Your task to perform on an android device: Go to network settings Image 0: 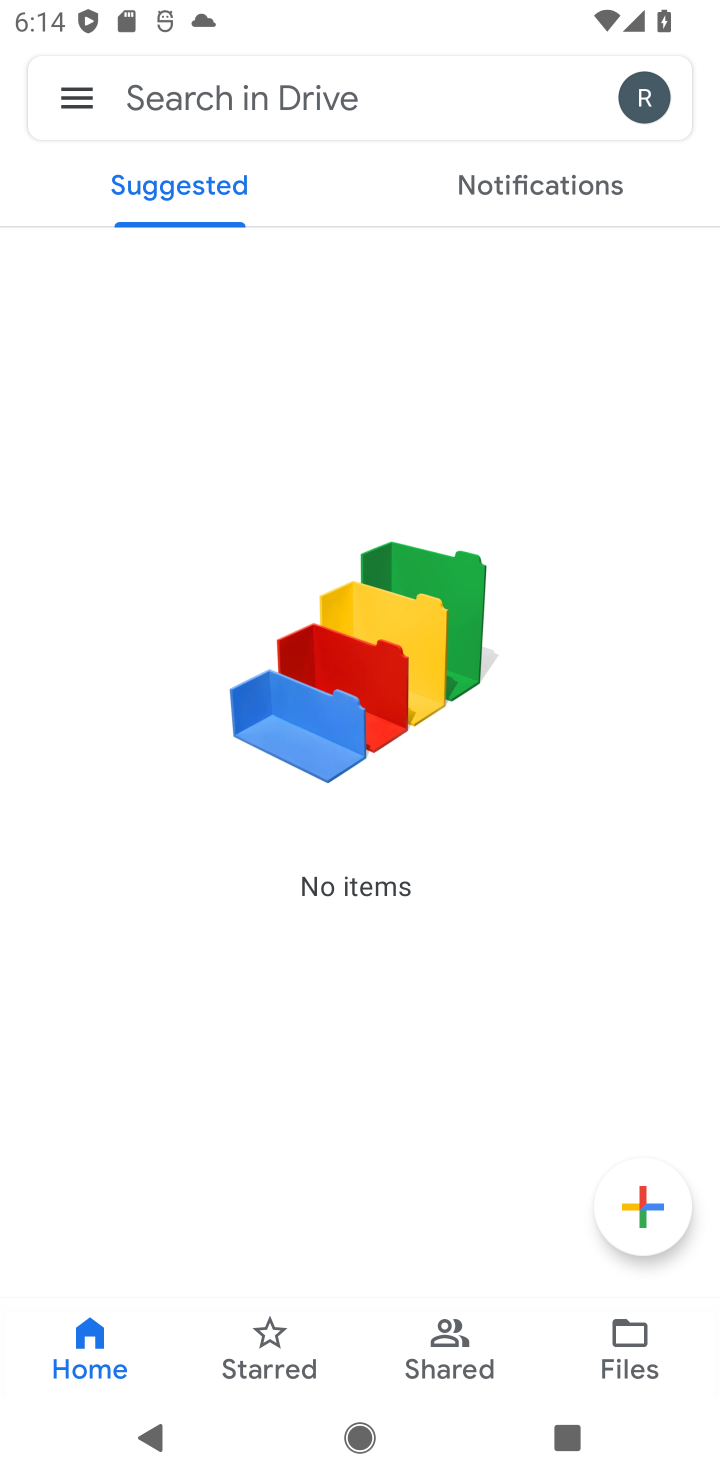
Step 0: press home button
Your task to perform on an android device: Go to network settings Image 1: 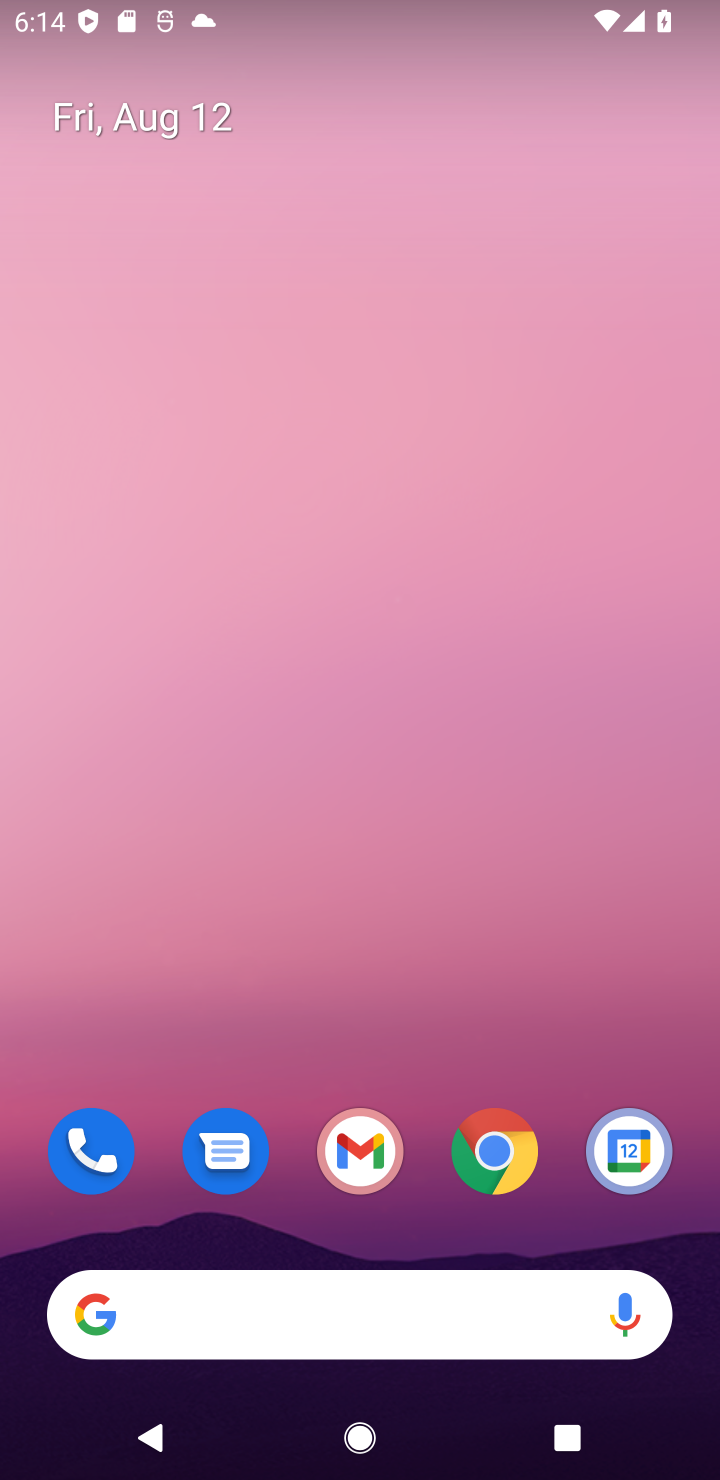
Step 1: drag from (405, 1066) to (296, 114)
Your task to perform on an android device: Go to network settings Image 2: 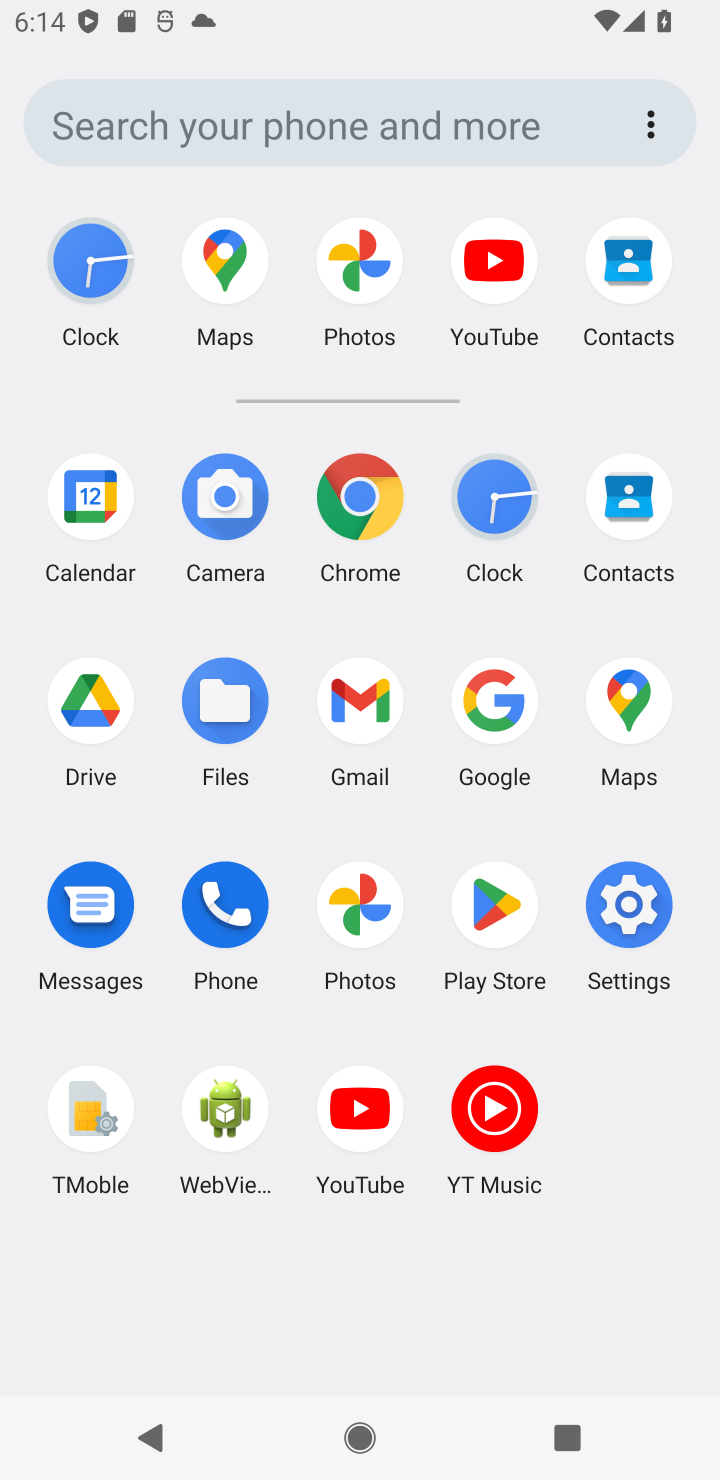
Step 2: click (626, 911)
Your task to perform on an android device: Go to network settings Image 3: 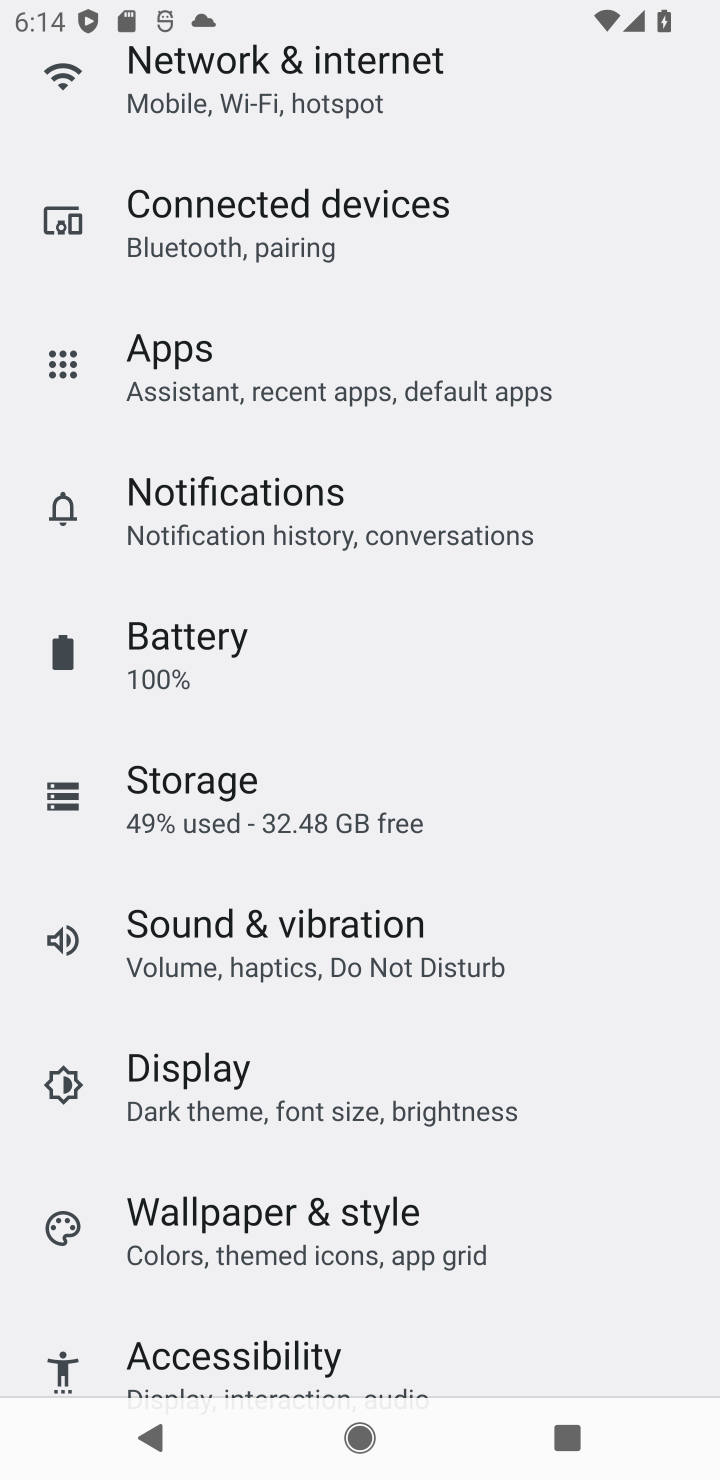
Step 3: click (336, 69)
Your task to perform on an android device: Go to network settings Image 4: 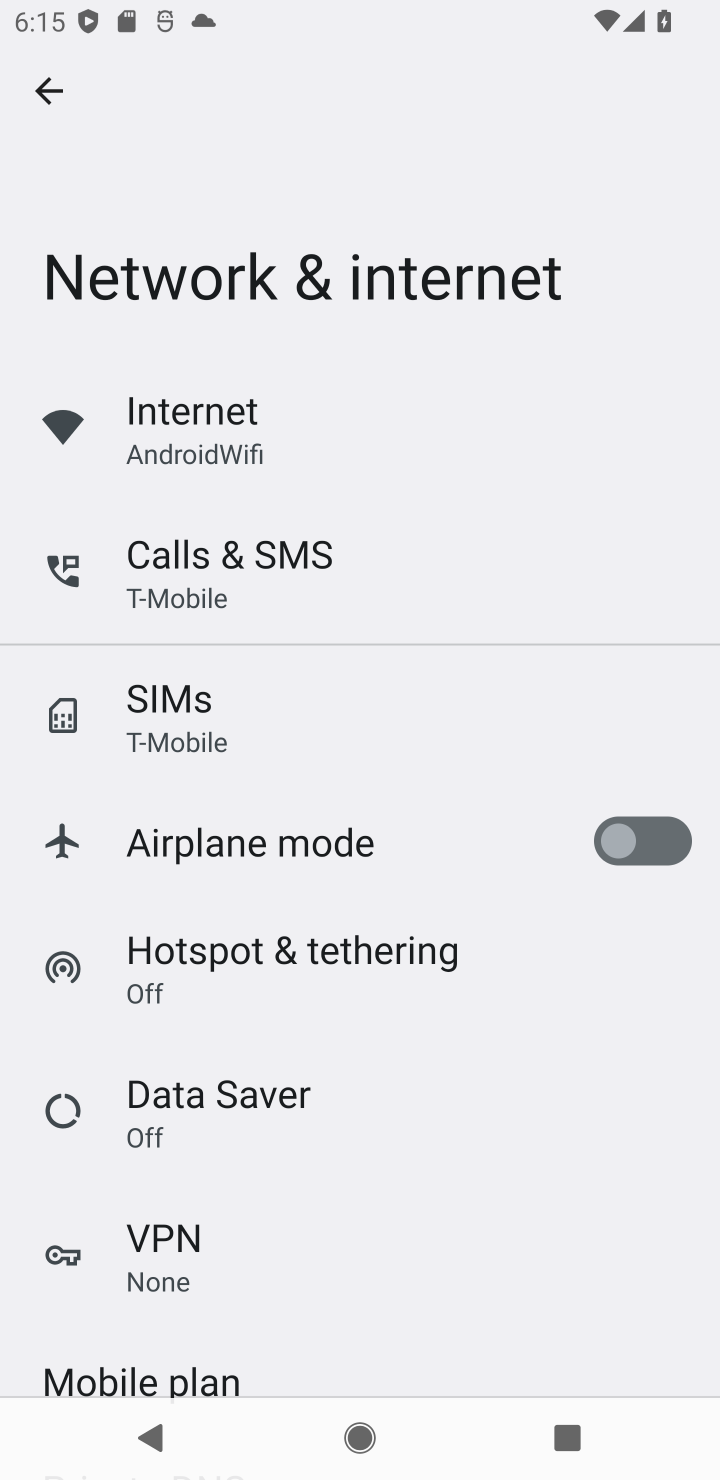
Step 4: task complete